Your task to perform on an android device: Search for Italian restaurants on Maps Image 0: 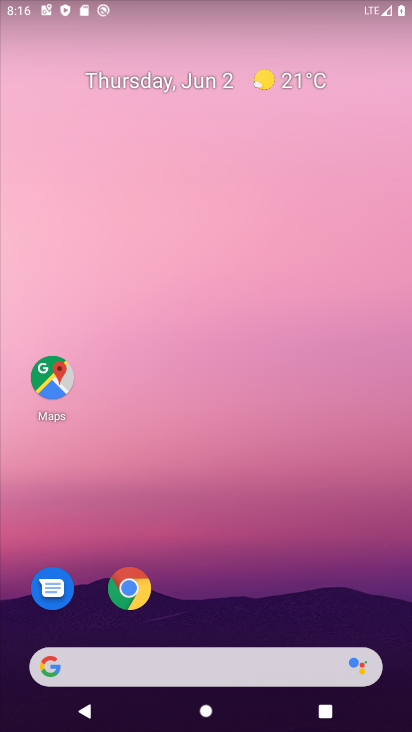
Step 0: drag from (263, 522) to (270, 222)
Your task to perform on an android device: Search for Italian restaurants on Maps Image 1: 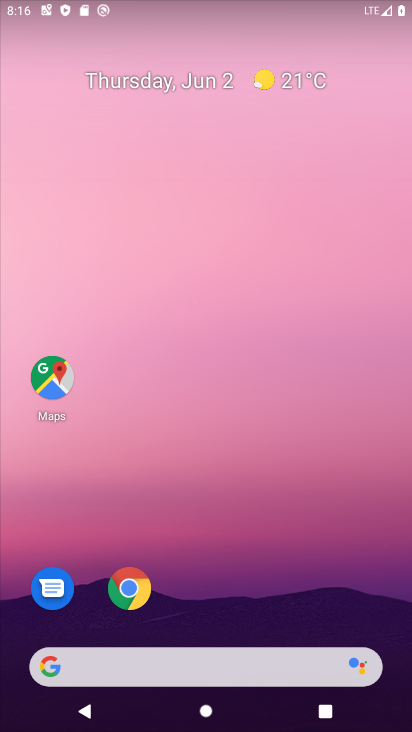
Step 1: drag from (279, 287) to (320, 47)
Your task to perform on an android device: Search for Italian restaurants on Maps Image 2: 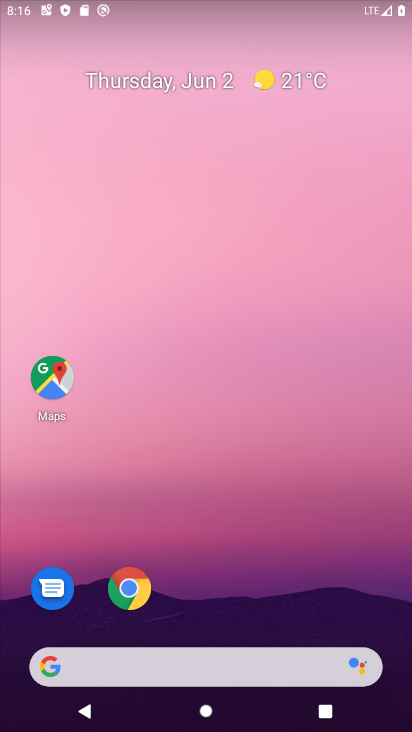
Step 2: drag from (224, 613) to (336, 63)
Your task to perform on an android device: Search for Italian restaurants on Maps Image 3: 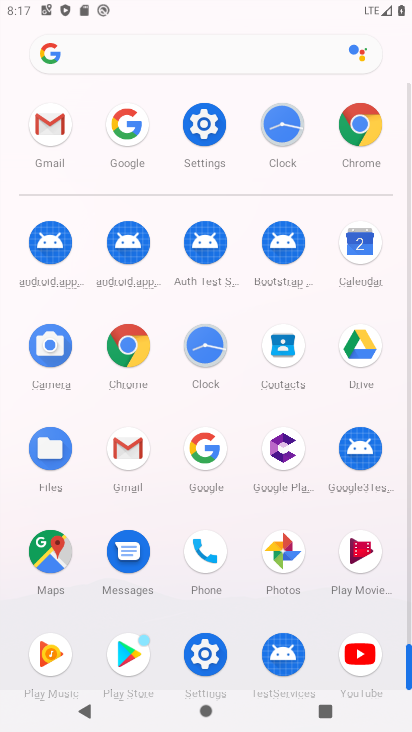
Step 3: click (55, 564)
Your task to perform on an android device: Search for Italian restaurants on Maps Image 4: 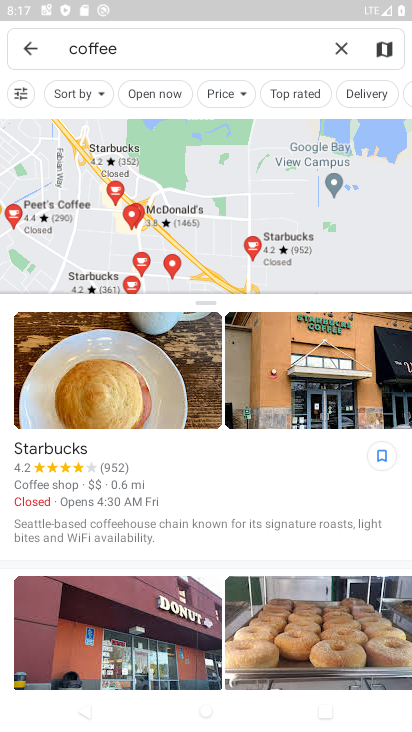
Step 4: click (342, 47)
Your task to perform on an android device: Search for Italian restaurants on Maps Image 5: 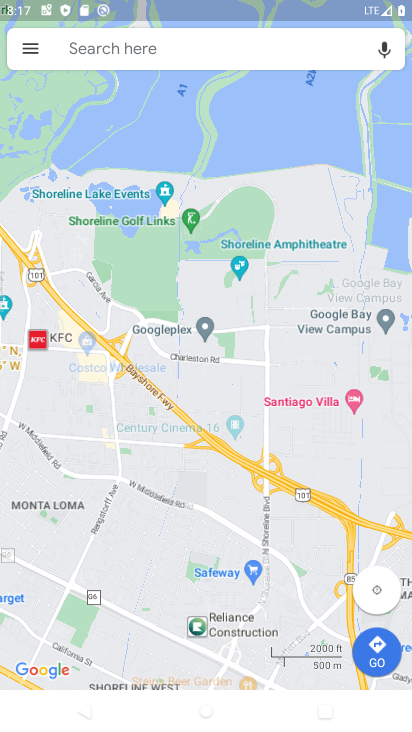
Step 5: click (262, 44)
Your task to perform on an android device: Search for Italian restaurants on Maps Image 6: 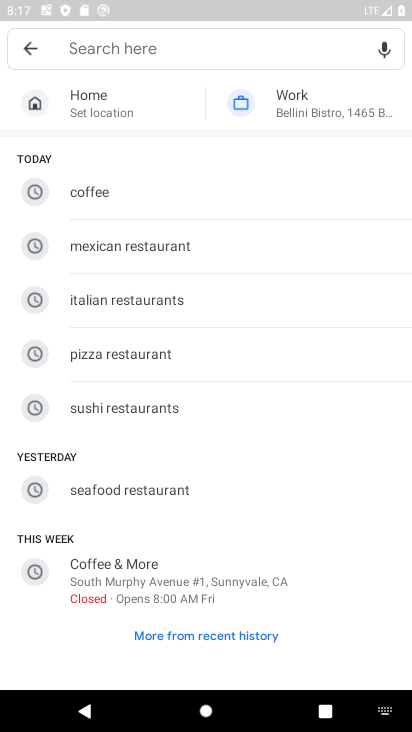
Step 6: click (188, 307)
Your task to perform on an android device: Search for Italian restaurants on Maps Image 7: 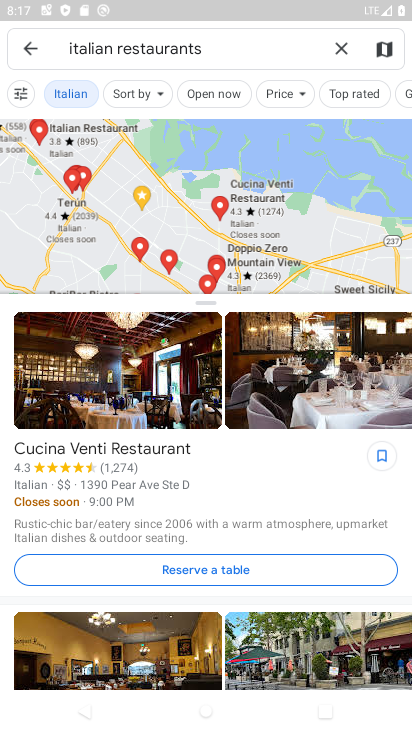
Step 7: task complete